Your task to perform on an android device: Open Amazon Image 0: 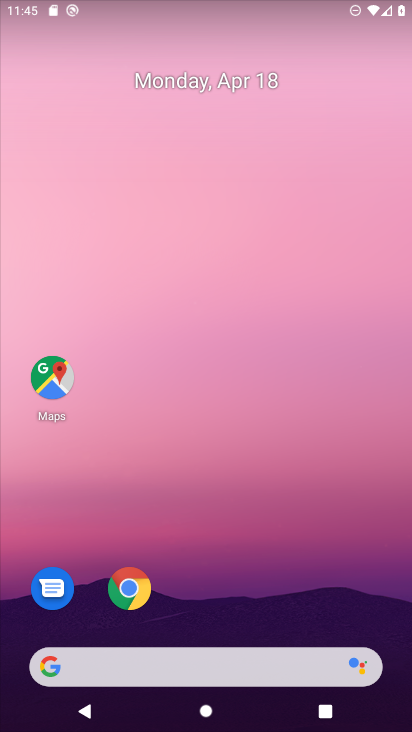
Step 0: click (132, 586)
Your task to perform on an android device: Open Amazon Image 1: 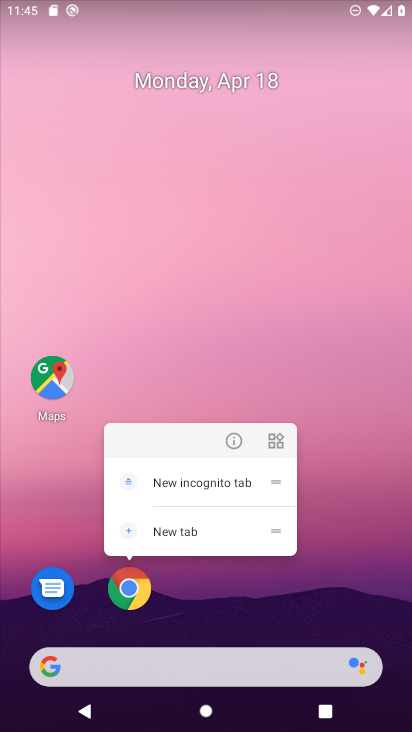
Step 1: click (130, 592)
Your task to perform on an android device: Open Amazon Image 2: 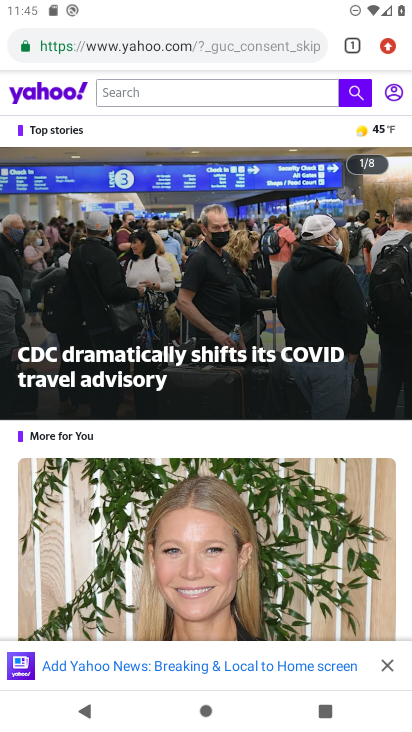
Step 2: click (244, 47)
Your task to perform on an android device: Open Amazon Image 3: 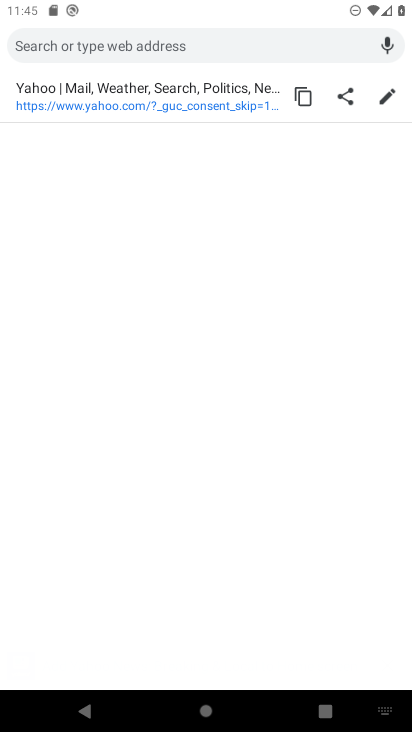
Step 3: type "amazon"
Your task to perform on an android device: Open Amazon Image 4: 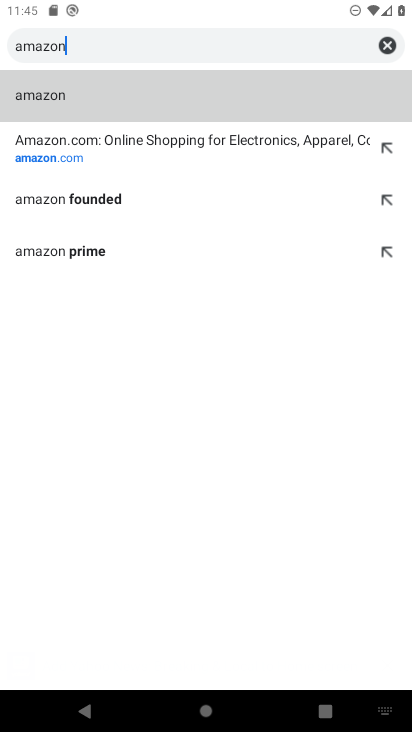
Step 4: click (100, 158)
Your task to perform on an android device: Open Amazon Image 5: 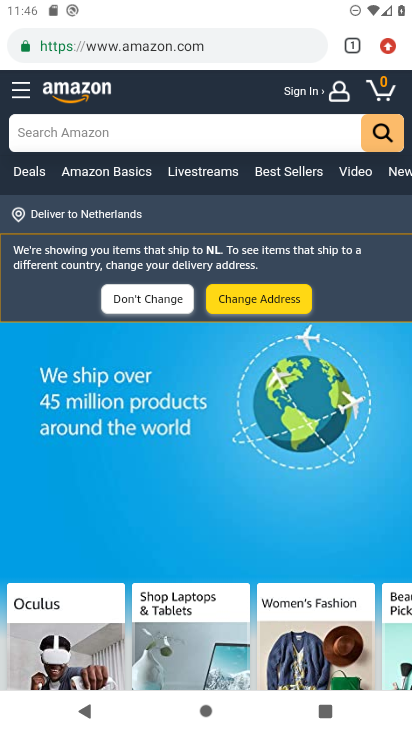
Step 5: task complete